Your task to perform on an android device: Find coffee shops on Maps Image 0: 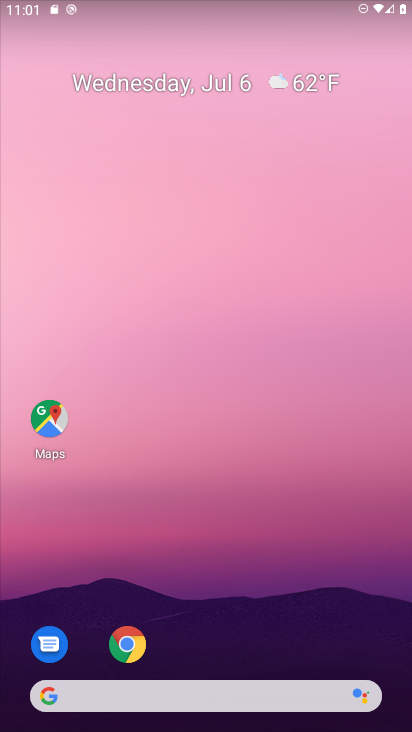
Step 0: press home button
Your task to perform on an android device: Find coffee shops on Maps Image 1: 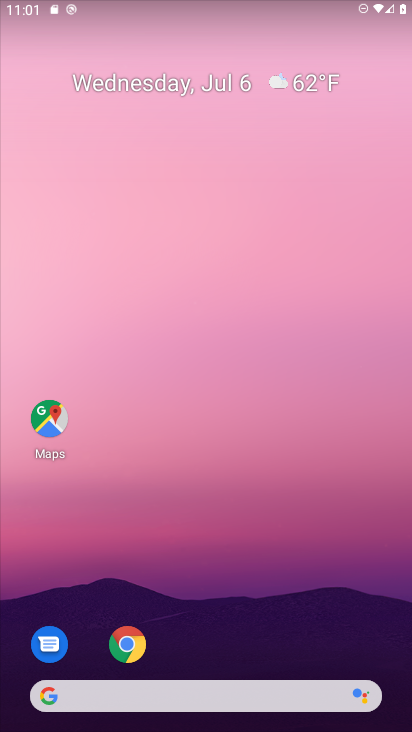
Step 1: click (45, 424)
Your task to perform on an android device: Find coffee shops on Maps Image 2: 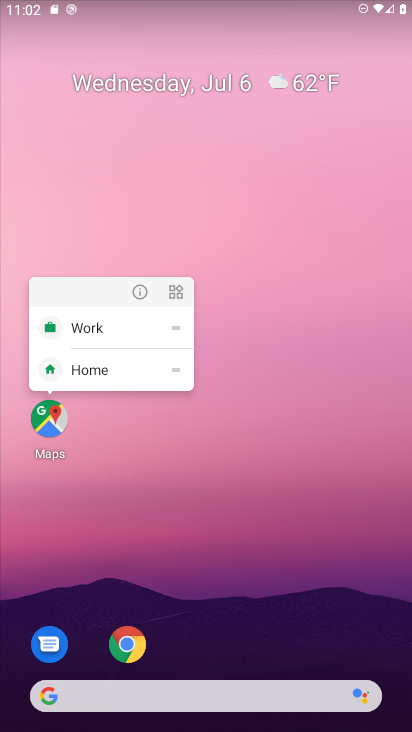
Step 2: click (45, 424)
Your task to perform on an android device: Find coffee shops on Maps Image 3: 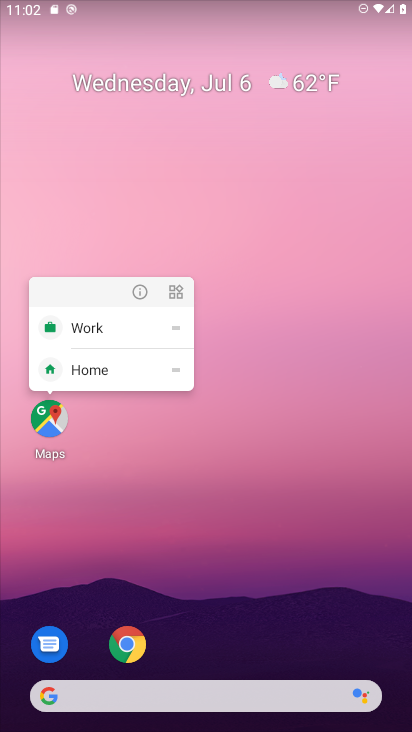
Step 3: click (45, 424)
Your task to perform on an android device: Find coffee shops on Maps Image 4: 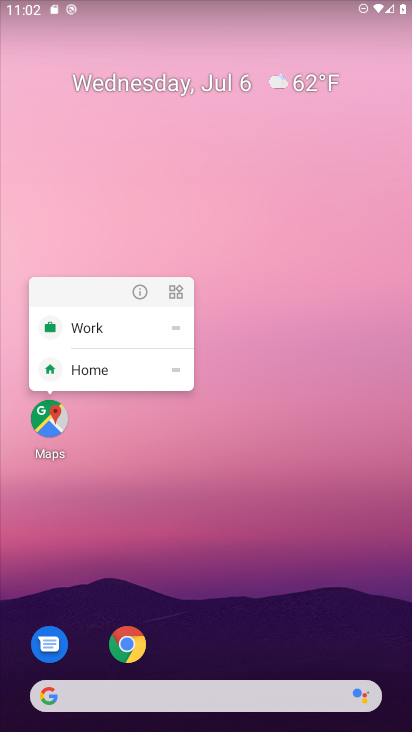
Step 4: click (45, 424)
Your task to perform on an android device: Find coffee shops on Maps Image 5: 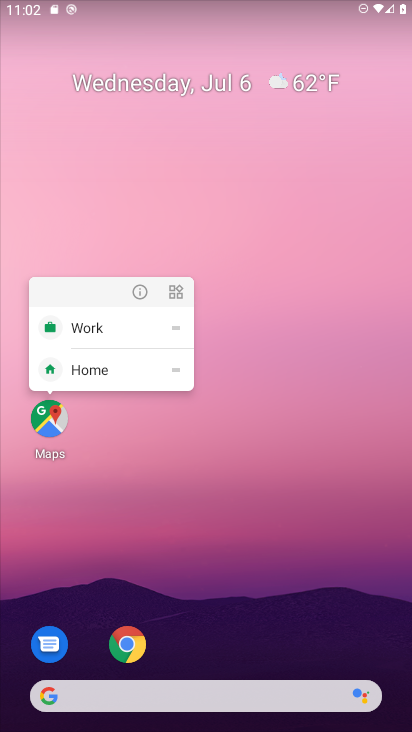
Step 5: click (45, 424)
Your task to perform on an android device: Find coffee shops on Maps Image 6: 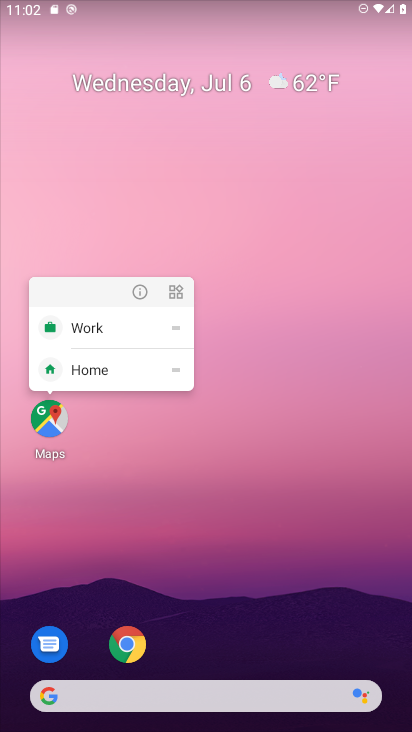
Step 6: click (45, 424)
Your task to perform on an android device: Find coffee shops on Maps Image 7: 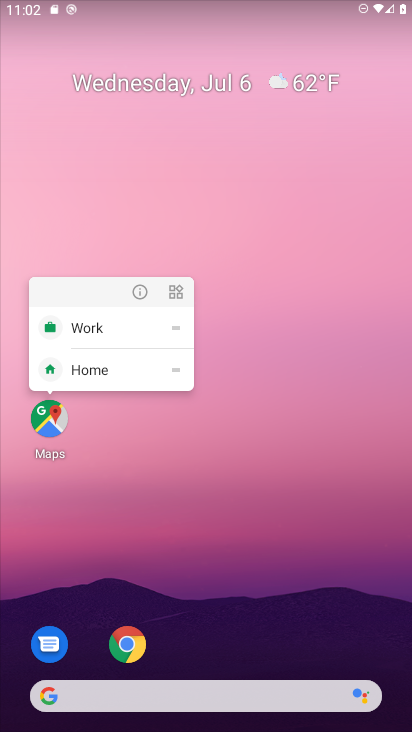
Step 7: drag from (274, 647) to (191, 4)
Your task to perform on an android device: Find coffee shops on Maps Image 8: 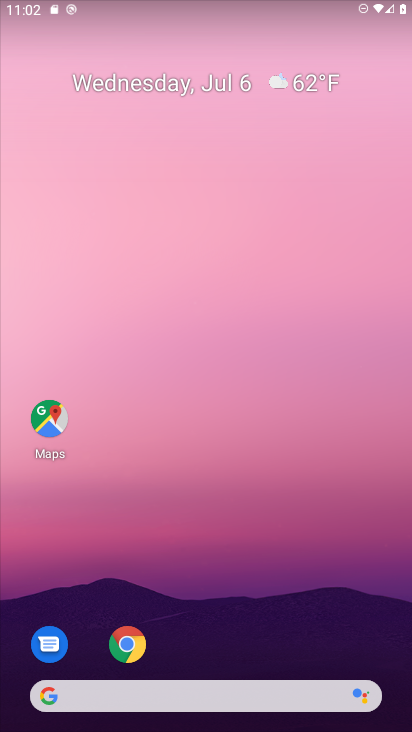
Step 8: drag from (297, 619) to (206, 5)
Your task to perform on an android device: Find coffee shops on Maps Image 9: 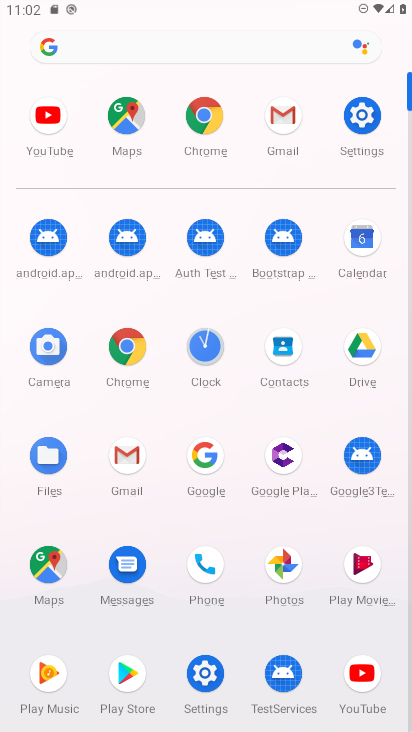
Step 9: click (131, 119)
Your task to perform on an android device: Find coffee shops on Maps Image 10: 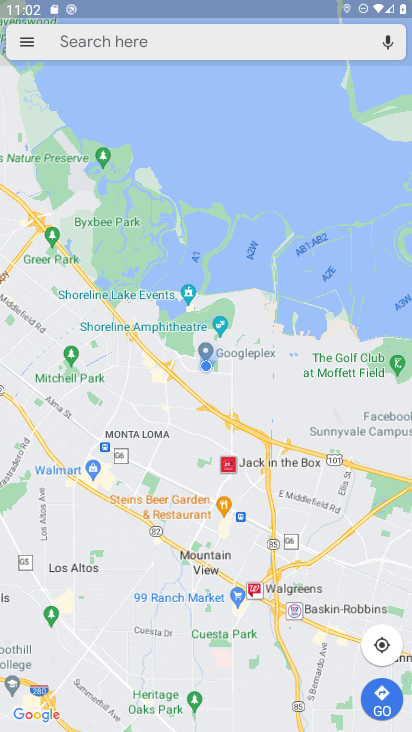
Step 10: click (165, 42)
Your task to perform on an android device: Find coffee shops on Maps Image 11: 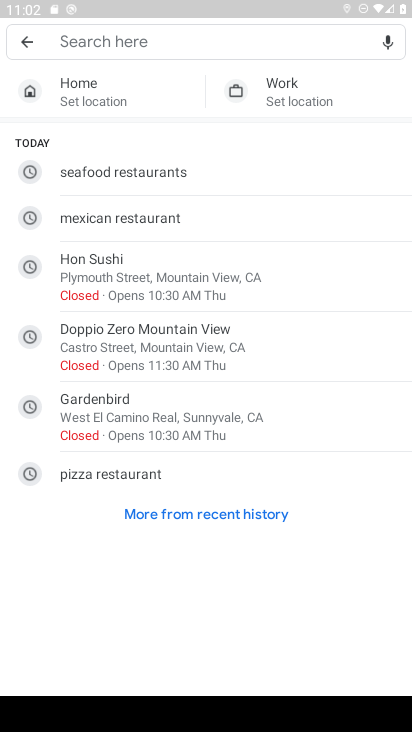
Step 11: type "coffee shops"
Your task to perform on an android device: Find coffee shops on Maps Image 12: 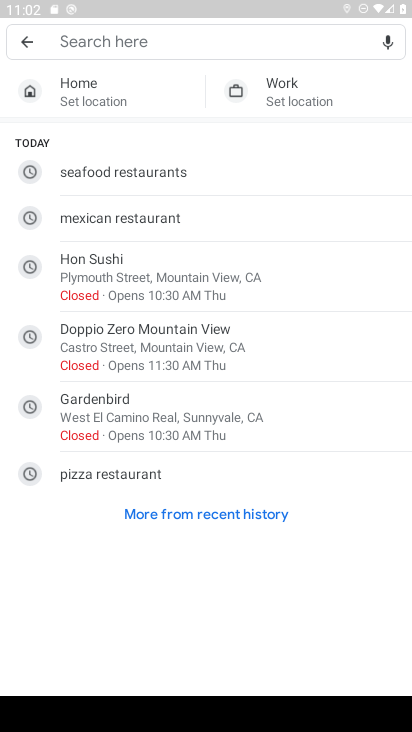
Step 12: click (160, 39)
Your task to perform on an android device: Find coffee shops on Maps Image 13: 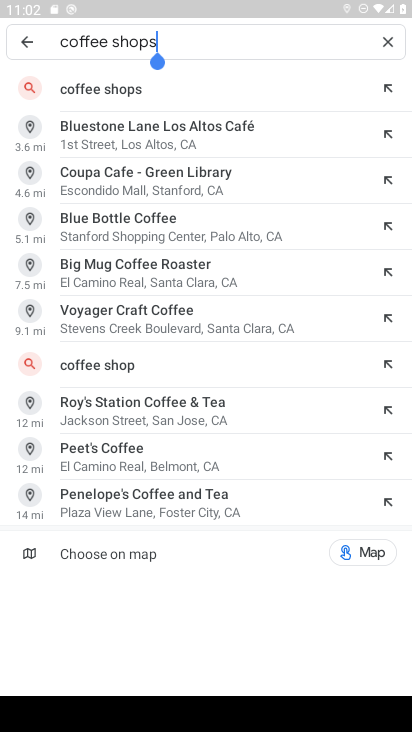
Step 13: click (89, 95)
Your task to perform on an android device: Find coffee shops on Maps Image 14: 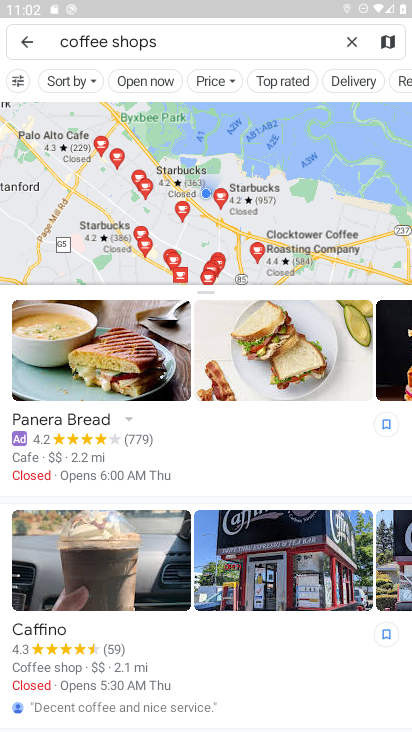
Step 14: task complete